Your task to perform on an android device: Go to Amazon Image 0: 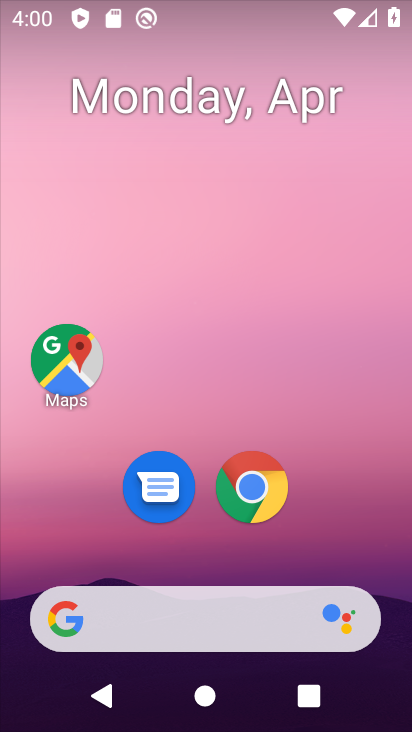
Step 0: drag from (362, 547) to (370, 99)
Your task to perform on an android device: Go to Amazon Image 1: 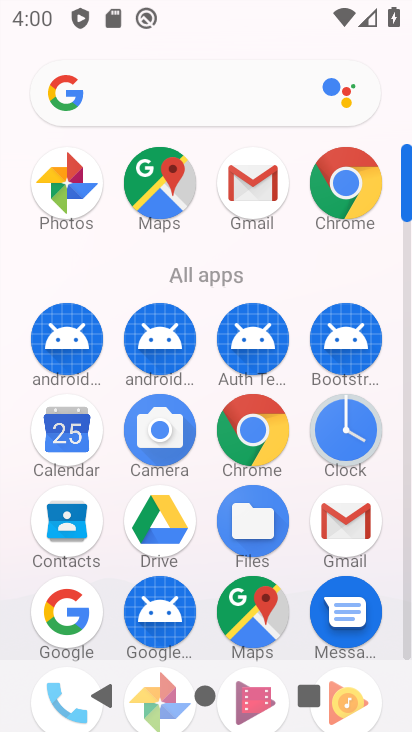
Step 1: click (266, 438)
Your task to perform on an android device: Go to Amazon Image 2: 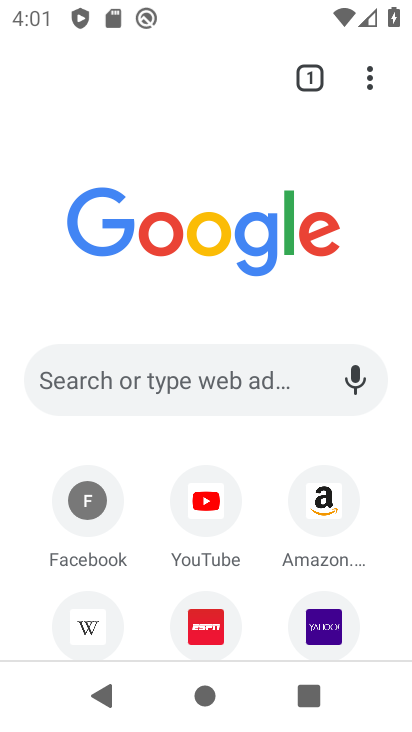
Step 2: click (324, 503)
Your task to perform on an android device: Go to Amazon Image 3: 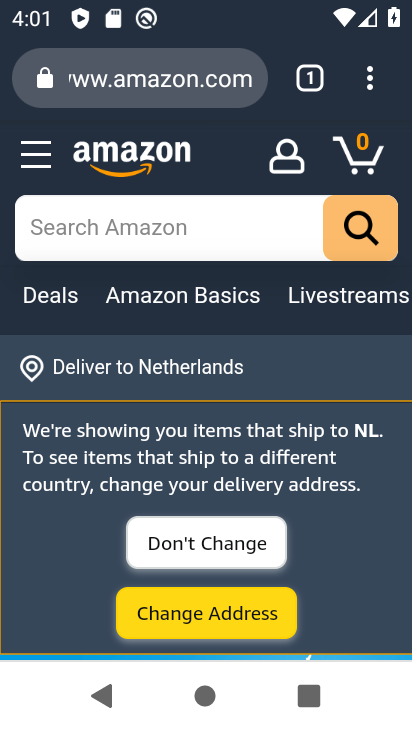
Step 3: task complete